Your task to perform on an android device: Open Google Maps and go to "Timeline" Image 0: 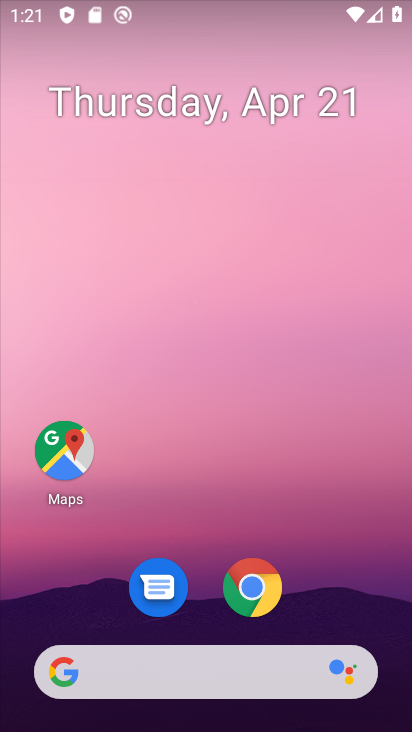
Step 0: click (59, 446)
Your task to perform on an android device: Open Google Maps and go to "Timeline" Image 1: 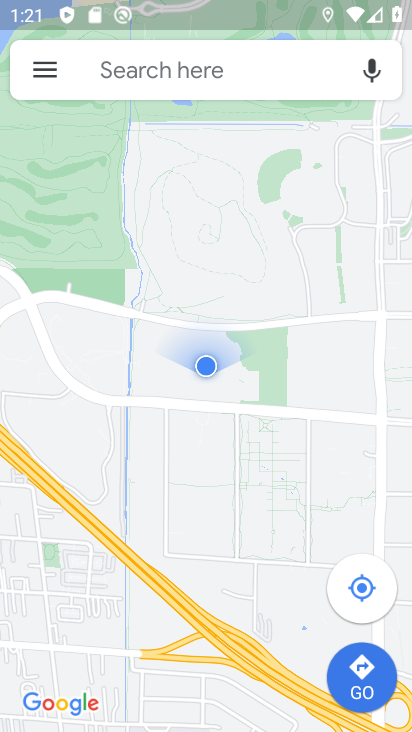
Step 1: click (43, 68)
Your task to perform on an android device: Open Google Maps and go to "Timeline" Image 2: 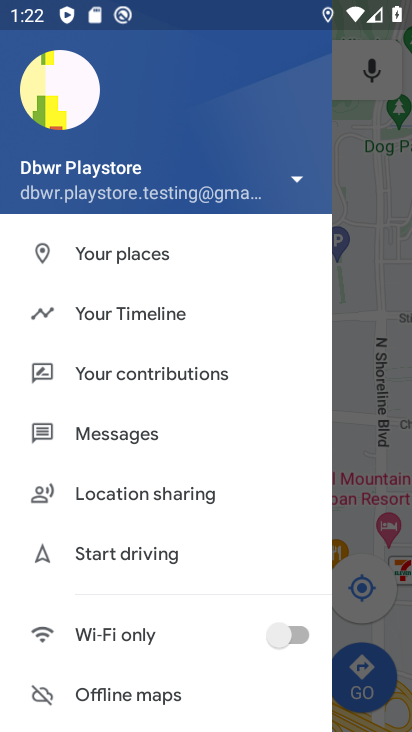
Step 2: click (132, 313)
Your task to perform on an android device: Open Google Maps and go to "Timeline" Image 3: 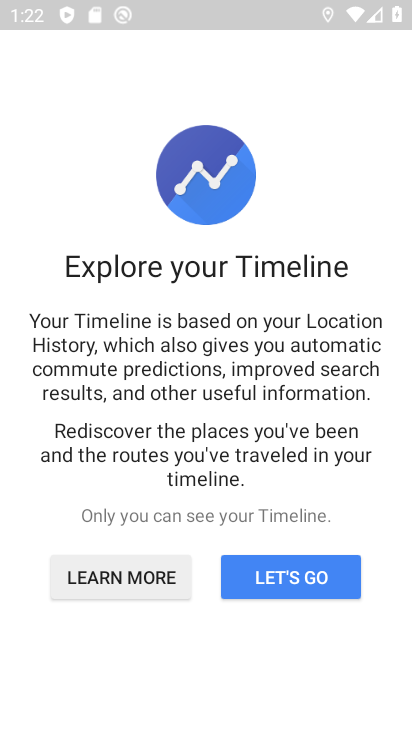
Step 3: task complete